Your task to perform on an android device: Go to calendar. Show me events next week Image 0: 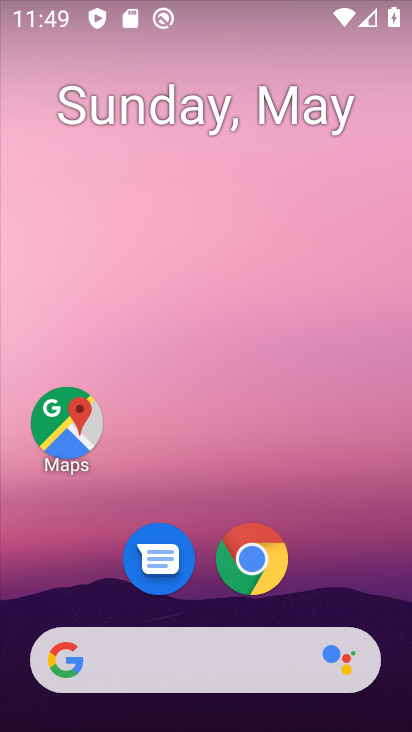
Step 0: drag from (187, 656) to (141, 132)
Your task to perform on an android device: Go to calendar. Show me events next week Image 1: 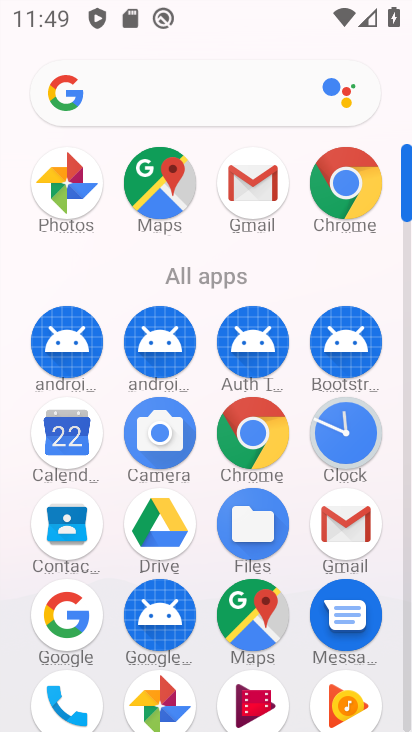
Step 1: click (73, 445)
Your task to perform on an android device: Go to calendar. Show me events next week Image 2: 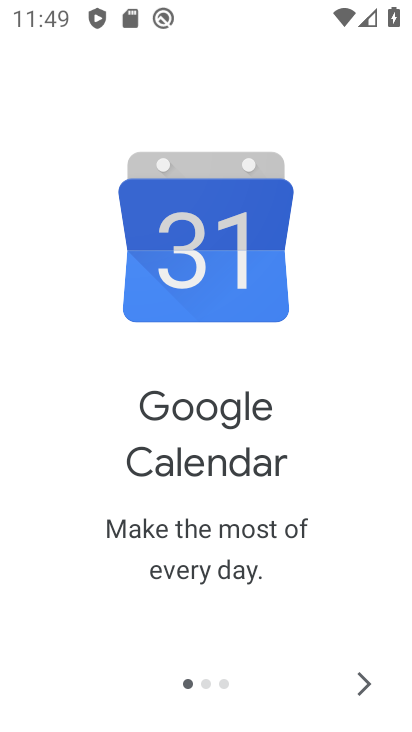
Step 2: click (362, 676)
Your task to perform on an android device: Go to calendar. Show me events next week Image 3: 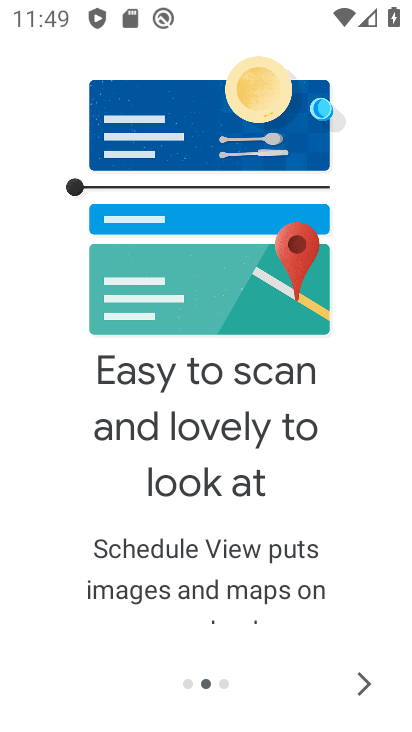
Step 3: click (362, 677)
Your task to perform on an android device: Go to calendar. Show me events next week Image 4: 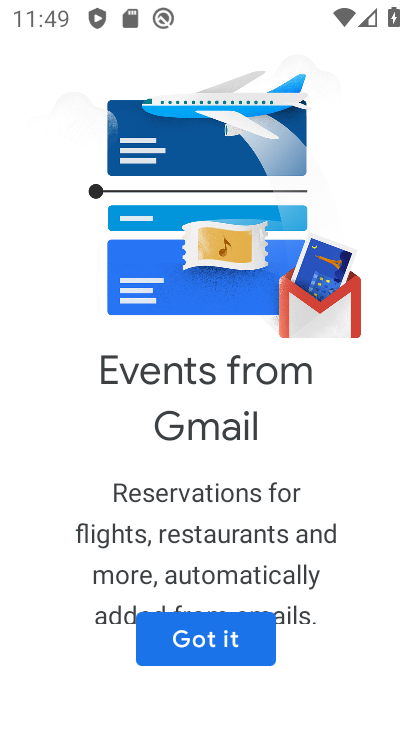
Step 4: click (231, 643)
Your task to perform on an android device: Go to calendar. Show me events next week Image 5: 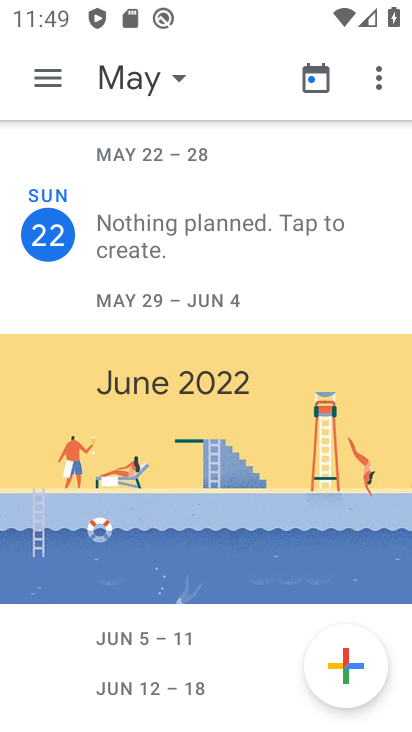
Step 5: click (180, 83)
Your task to perform on an android device: Go to calendar. Show me events next week Image 6: 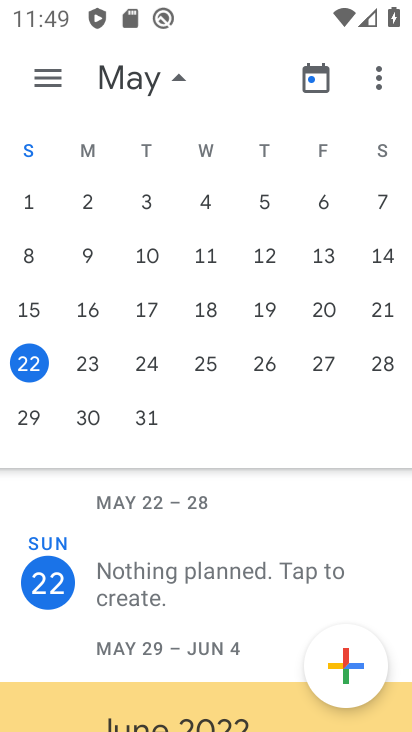
Step 6: click (35, 425)
Your task to perform on an android device: Go to calendar. Show me events next week Image 7: 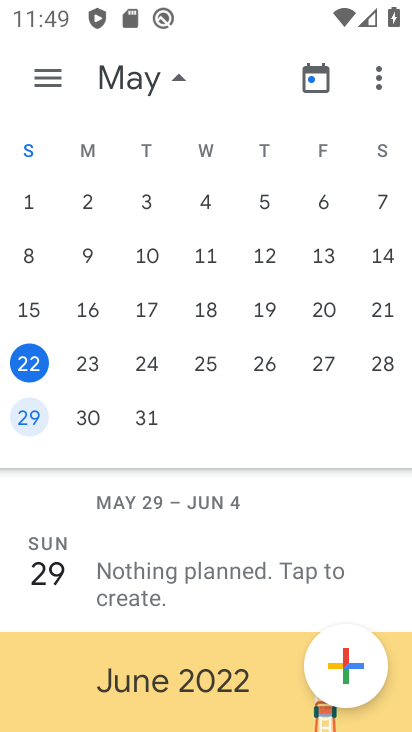
Step 7: click (48, 76)
Your task to perform on an android device: Go to calendar. Show me events next week Image 8: 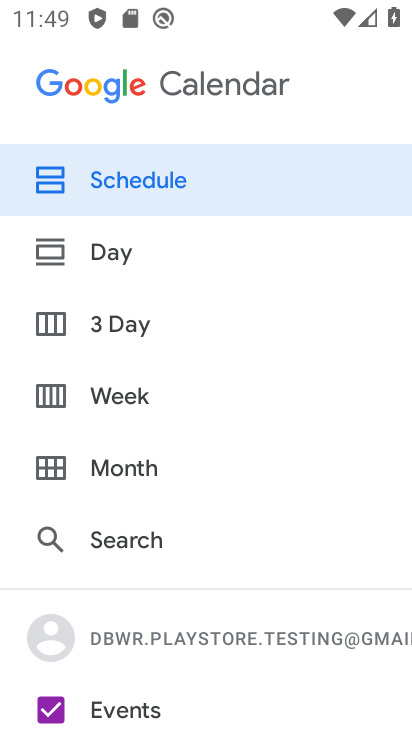
Step 8: click (117, 392)
Your task to perform on an android device: Go to calendar. Show me events next week Image 9: 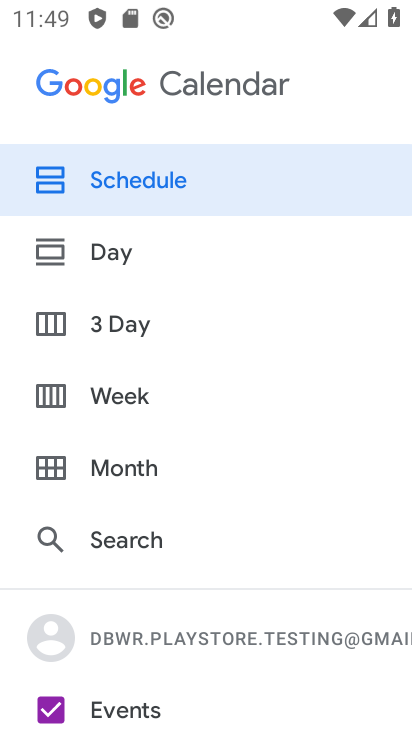
Step 9: click (212, 379)
Your task to perform on an android device: Go to calendar. Show me events next week Image 10: 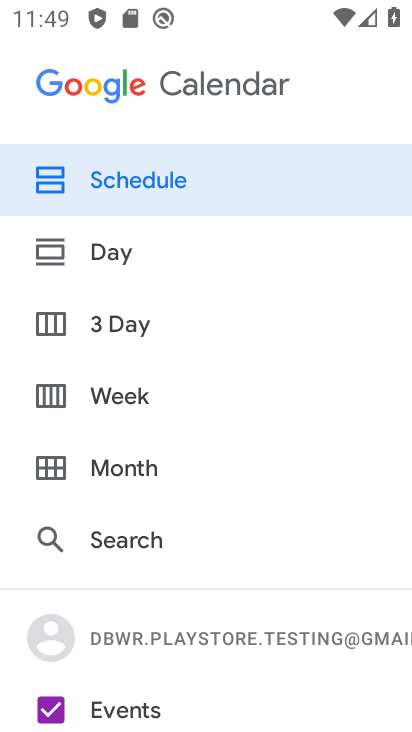
Step 10: click (189, 404)
Your task to perform on an android device: Go to calendar. Show me events next week Image 11: 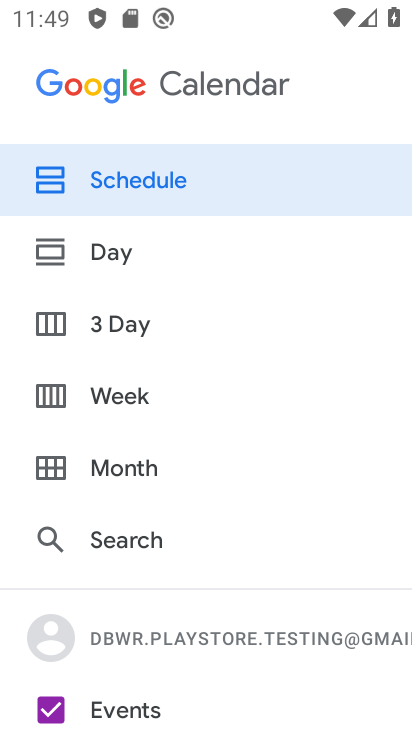
Step 11: click (142, 408)
Your task to perform on an android device: Go to calendar. Show me events next week Image 12: 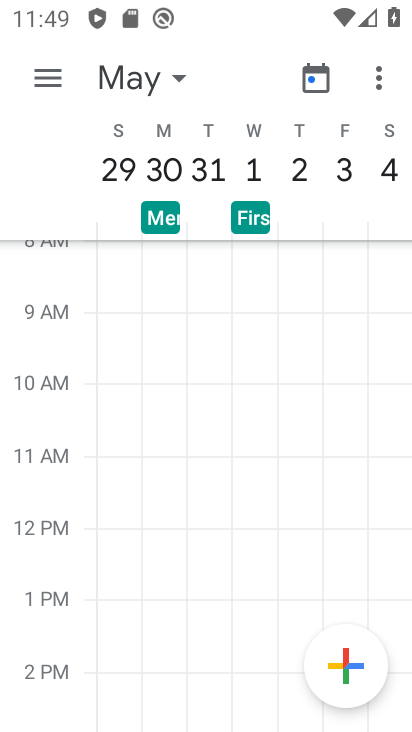
Step 12: task complete